Your task to perform on an android device: Open the calculator app Image 0: 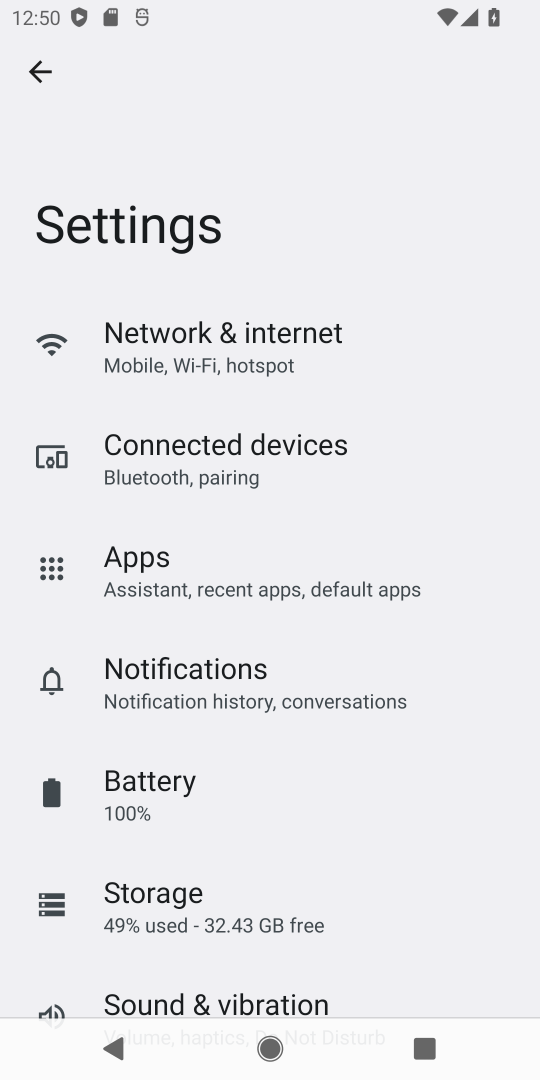
Step 0: press home button
Your task to perform on an android device: Open the calculator app Image 1: 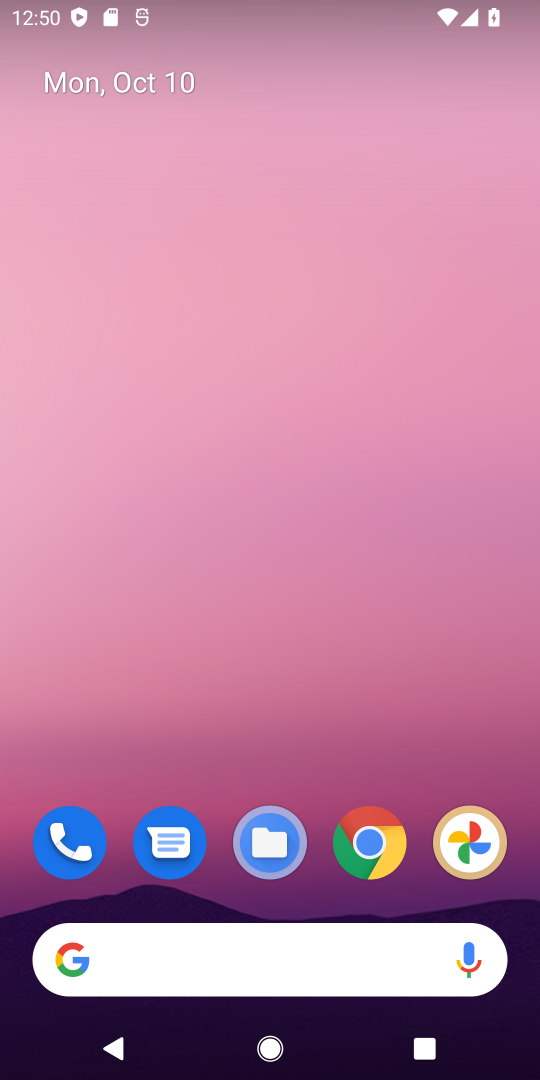
Step 1: task complete